Your task to perform on an android device: open app "Skype" Image 0: 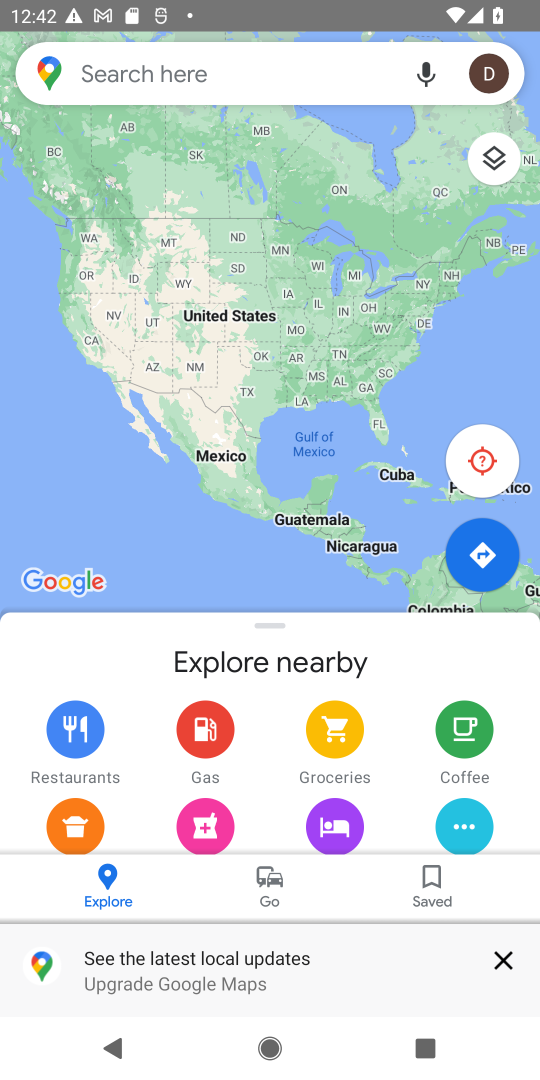
Step 0: press home button
Your task to perform on an android device: open app "Skype" Image 1: 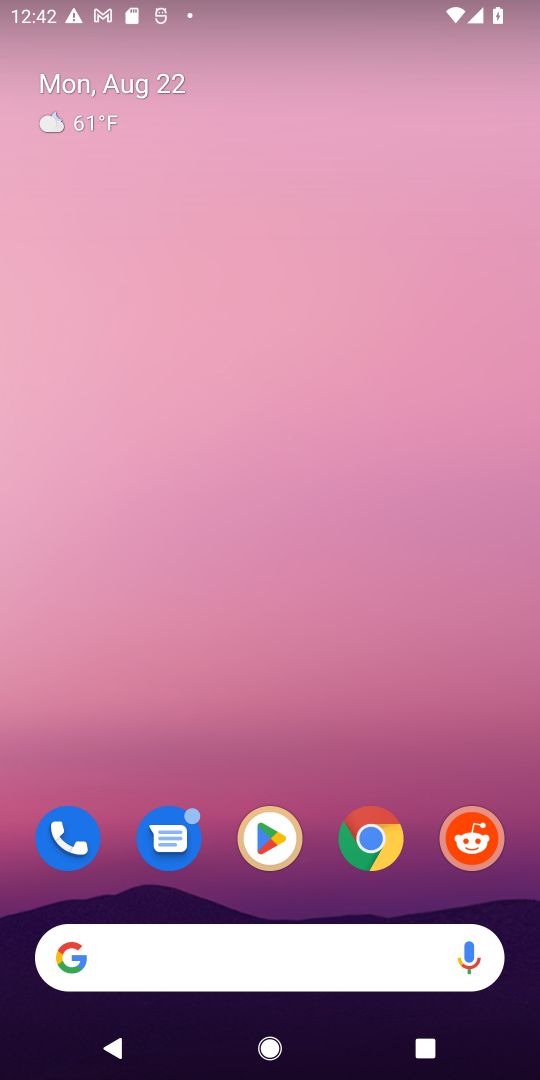
Step 1: drag from (214, 907) to (214, 190)
Your task to perform on an android device: open app "Skype" Image 2: 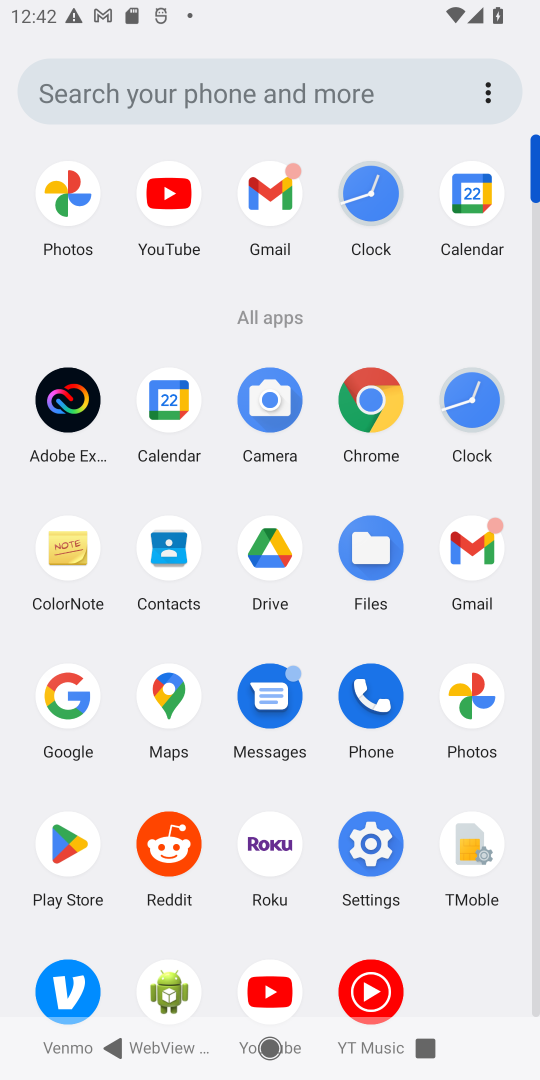
Step 2: click (52, 844)
Your task to perform on an android device: open app "Skype" Image 3: 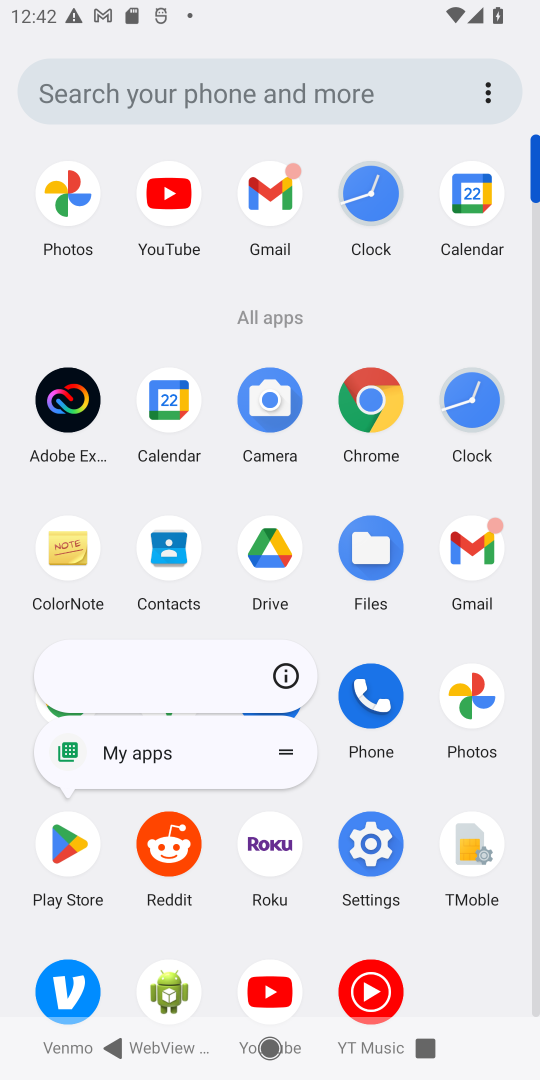
Step 3: click (56, 856)
Your task to perform on an android device: open app "Skype" Image 4: 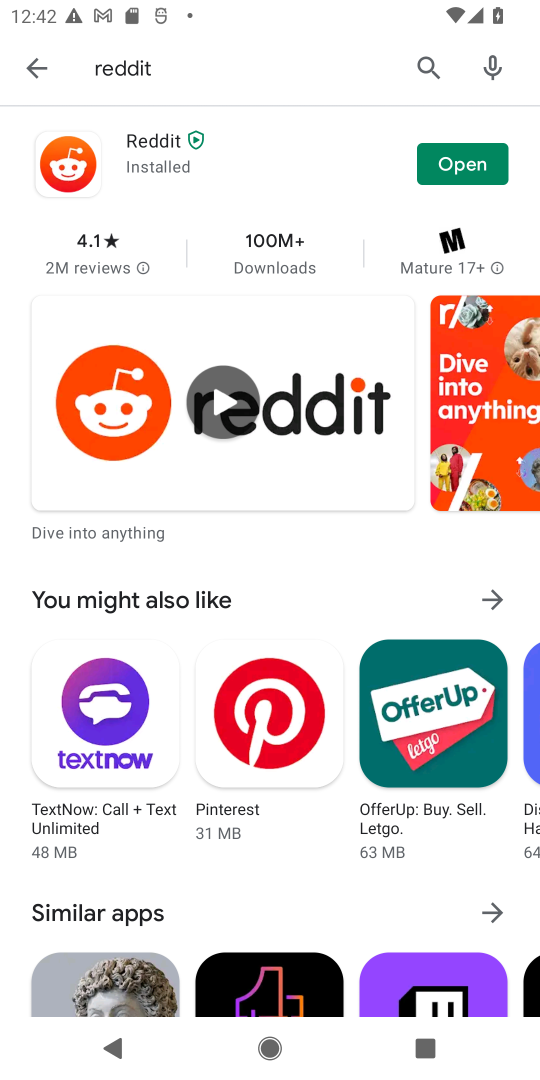
Step 4: click (423, 72)
Your task to perform on an android device: open app "Skype" Image 5: 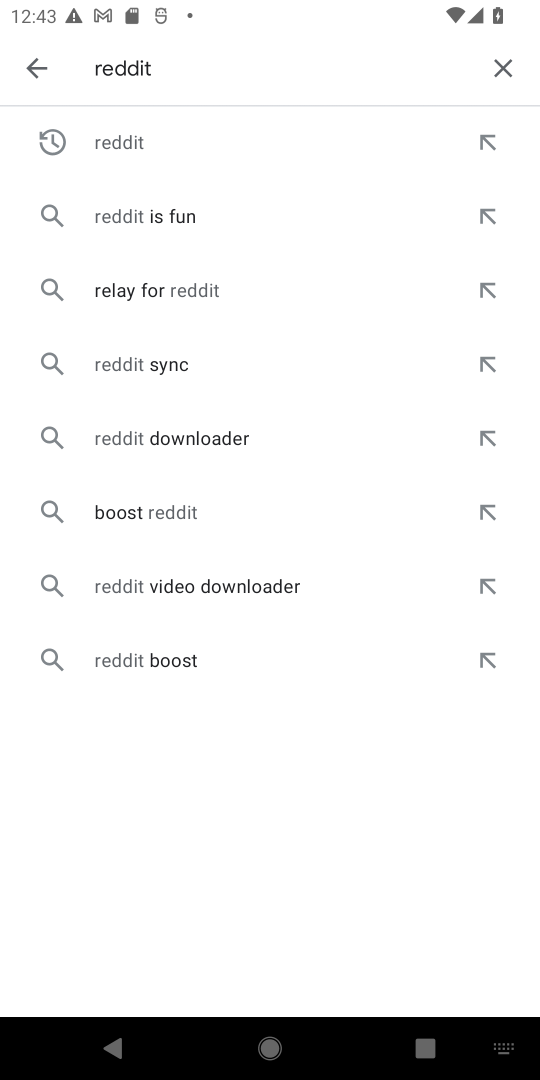
Step 5: click (510, 68)
Your task to perform on an android device: open app "Skype" Image 6: 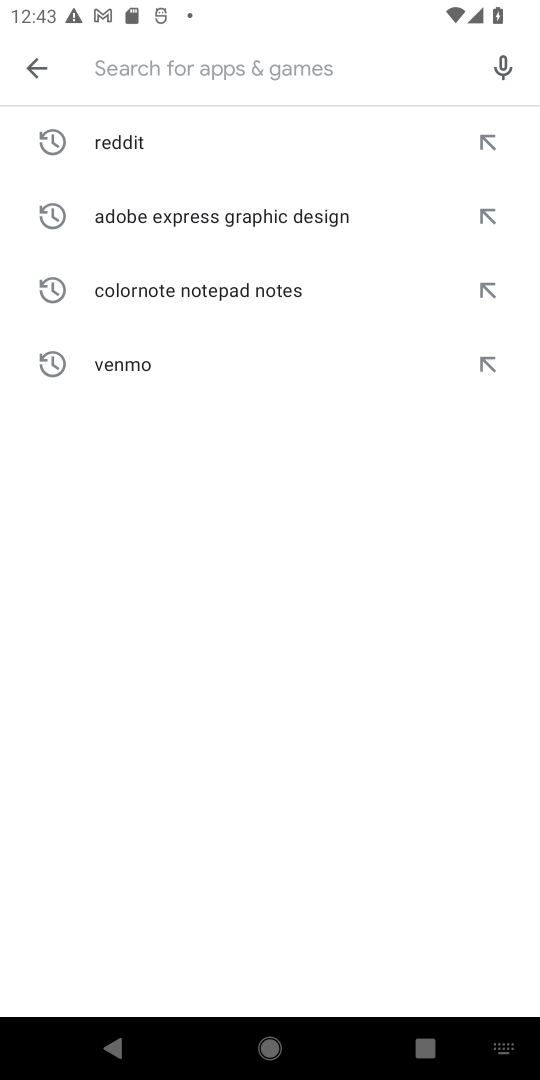
Step 6: type "Skype"
Your task to perform on an android device: open app "Skype" Image 7: 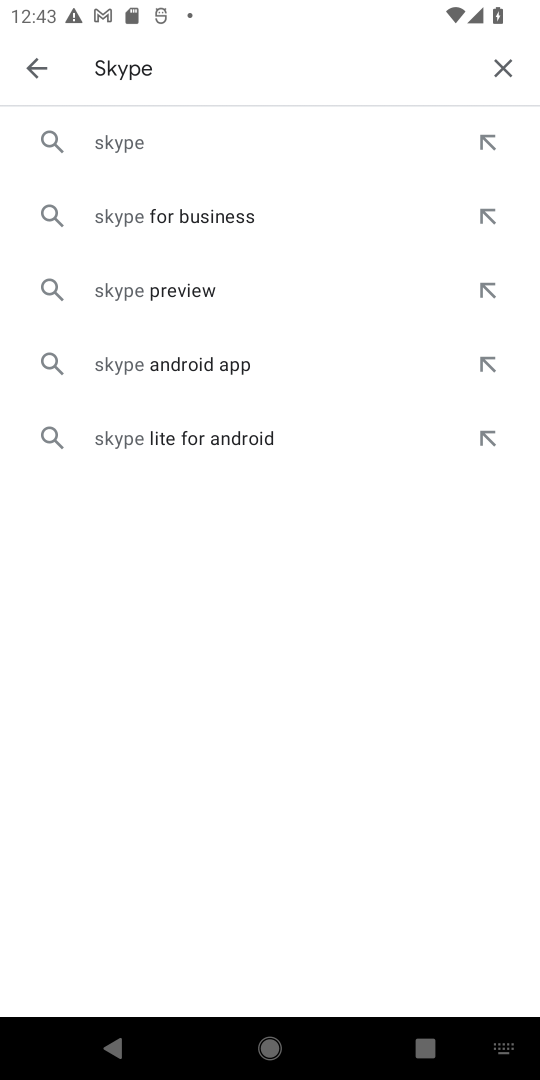
Step 7: click (127, 142)
Your task to perform on an android device: open app "Skype" Image 8: 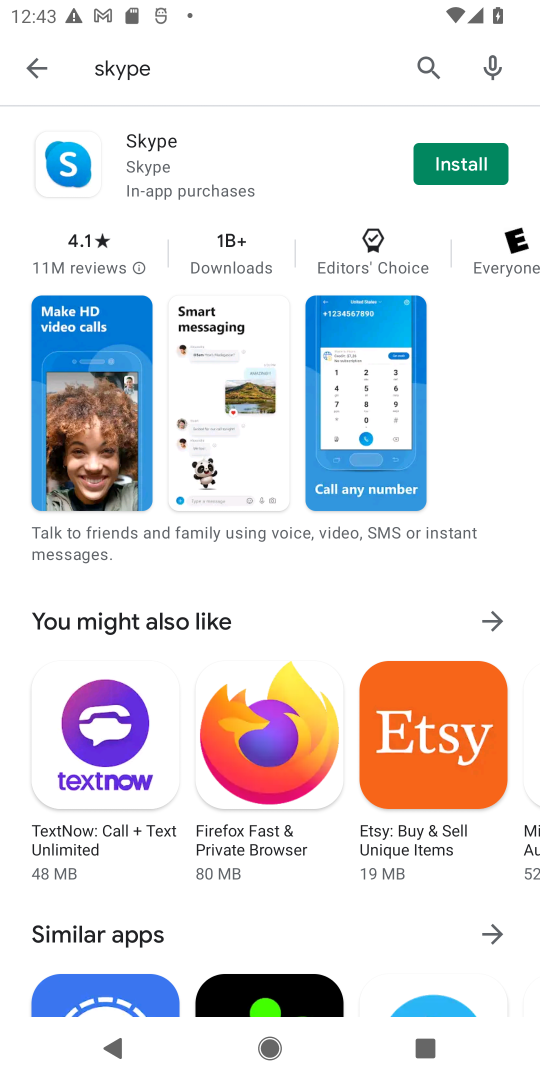
Step 8: click (433, 170)
Your task to perform on an android device: open app "Skype" Image 9: 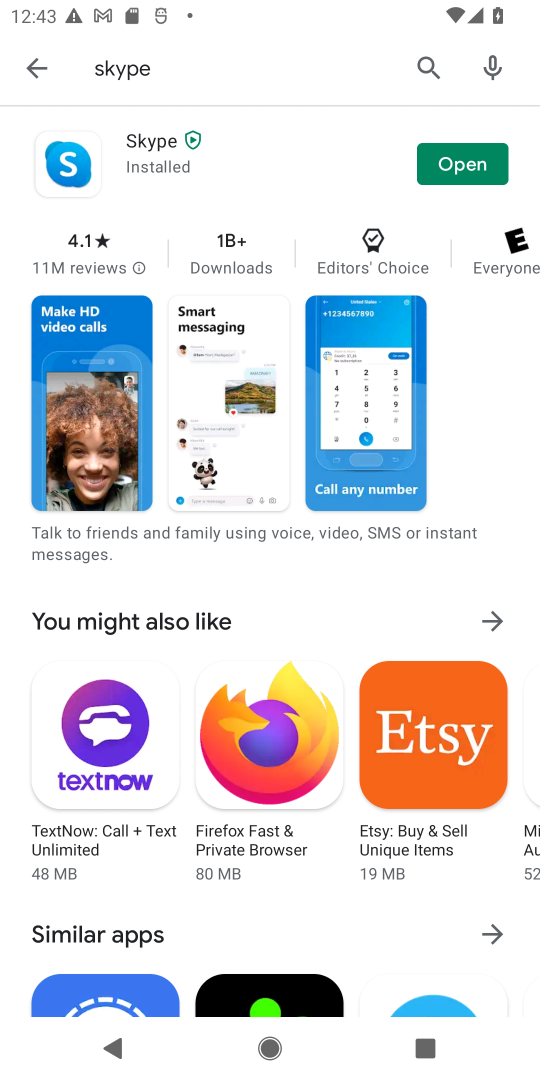
Step 9: click (463, 169)
Your task to perform on an android device: open app "Skype" Image 10: 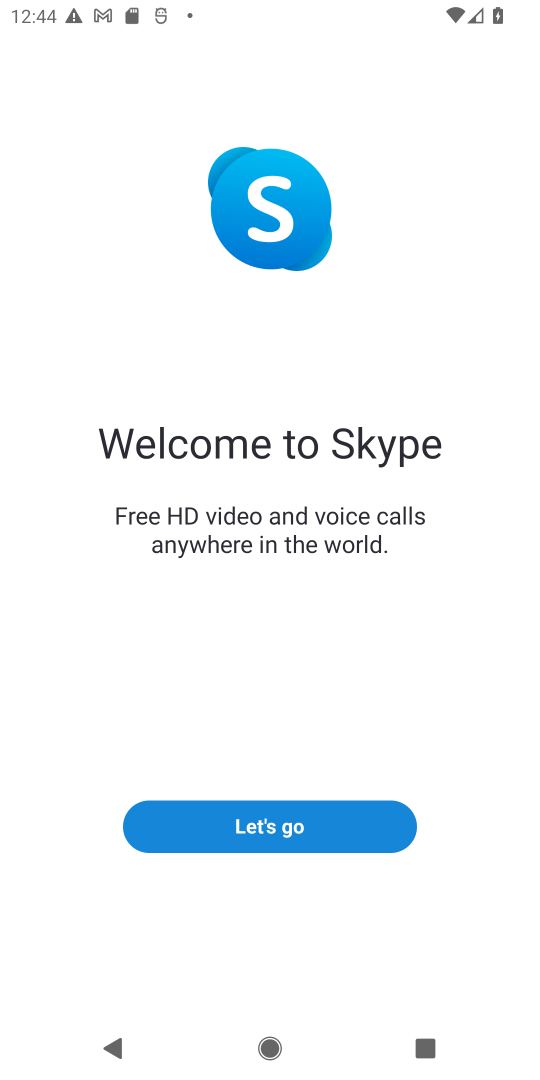
Step 10: task complete